Your task to perform on an android device: Search for apple airpods on costco, select the first entry, add it to the cart, then select checkout. Image 0: 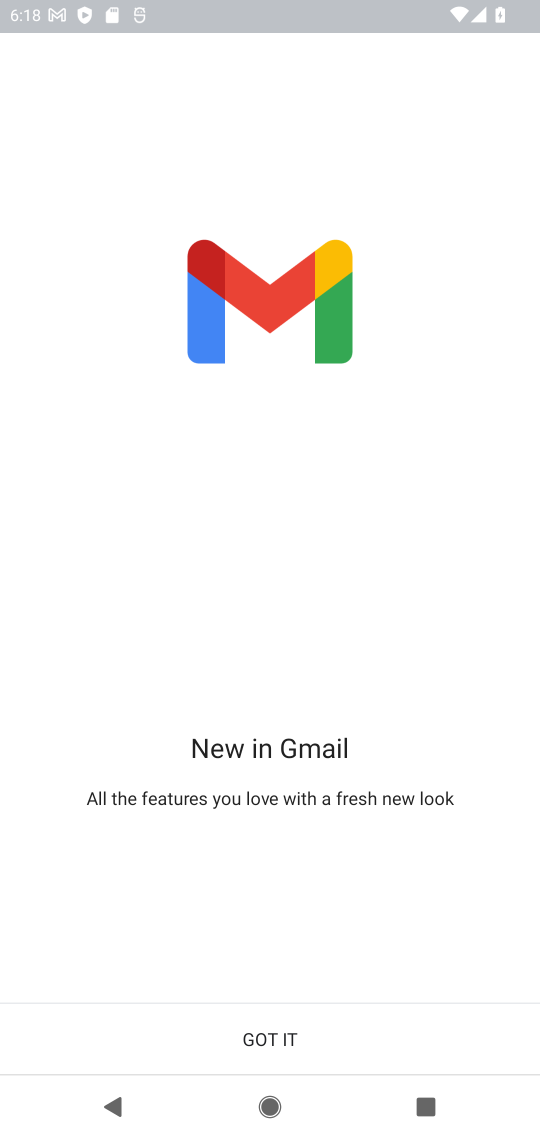
Step 0: press home button
Your task to perform on an android device: Search for apple airpods on costco, select the first entry, add it to the cart, then select checkout. Image 1: 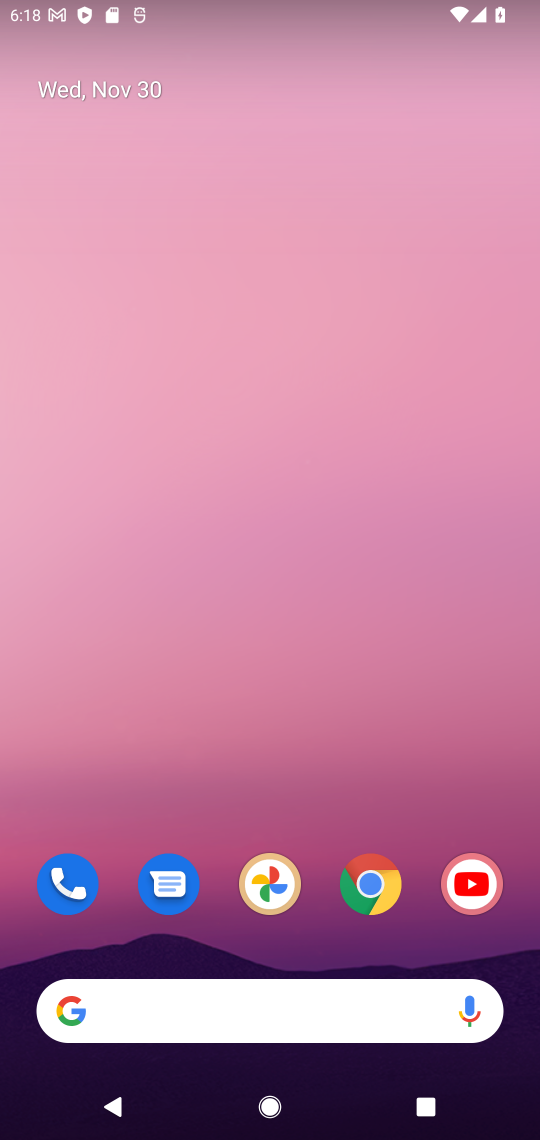
Step 1: click (367, 901)
Your task to perform on an android device: Search for apple airpods on costco, select the first entry, add it to the cart, then select checkout. Image 2: 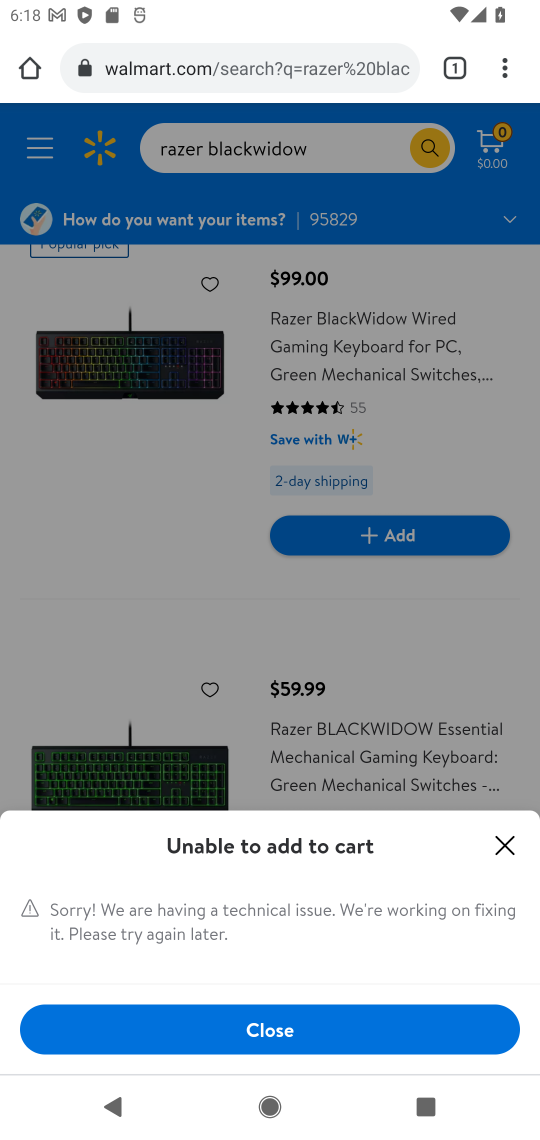
Step 2: click (240, 75)
Your task to perform on an android device: Search for apple airpods on costco, select the first entry, add it to the cart, then select checkout. Image 3: 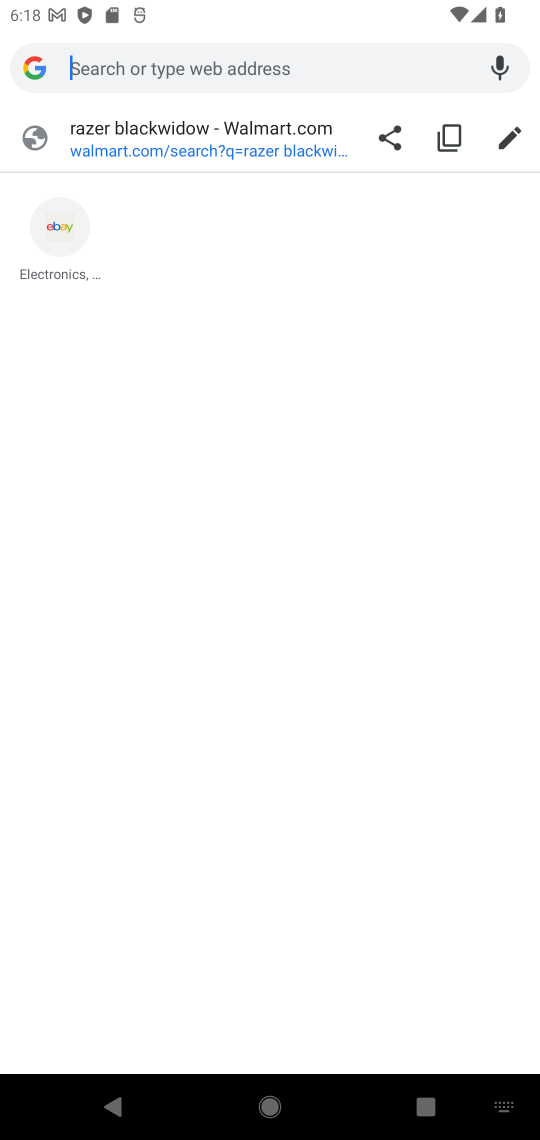
Step 3: type "costco.com"
Your task to perform on an android device: Search for apple airpods on costco, select the first entry, add it to the cart, then select checkout. Image 4: 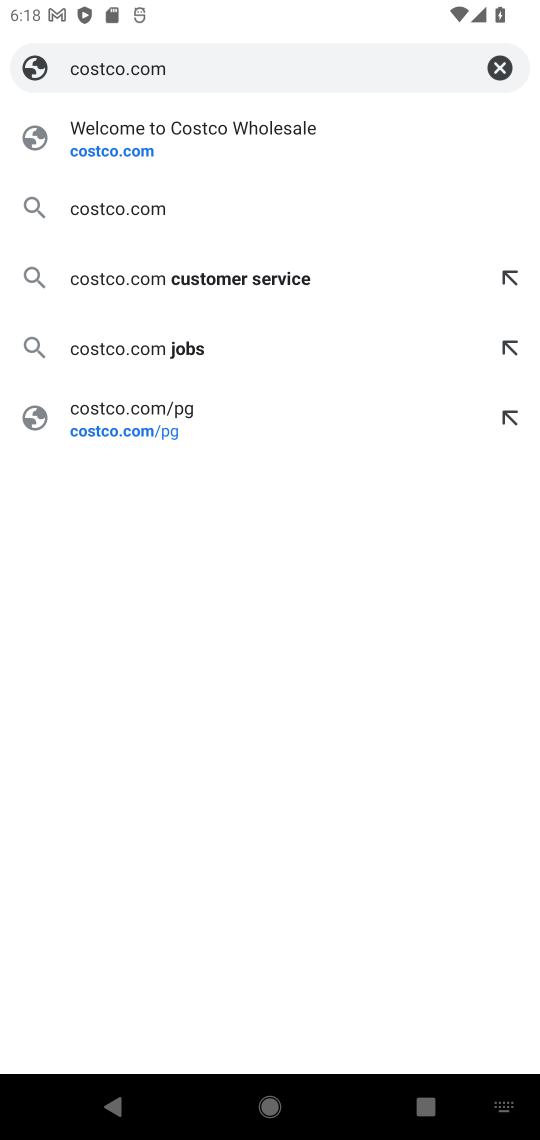
Step 4: click (77, 148)
Your task to perform on an android device: Search for apple airpods on costco, select the first entry, add it to the cart, then select checkout. Image 5: 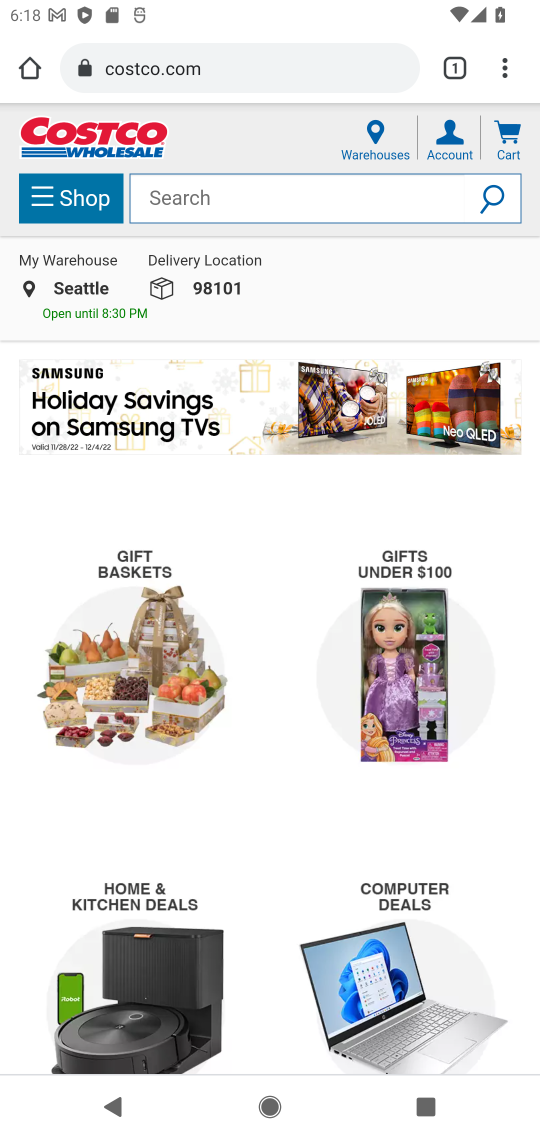
Step 5: click (193, 182)
Your task to perform on an android device: Search for apple airpods on costco, select the first entry, add it to the cart, then select checkout. Image 6: 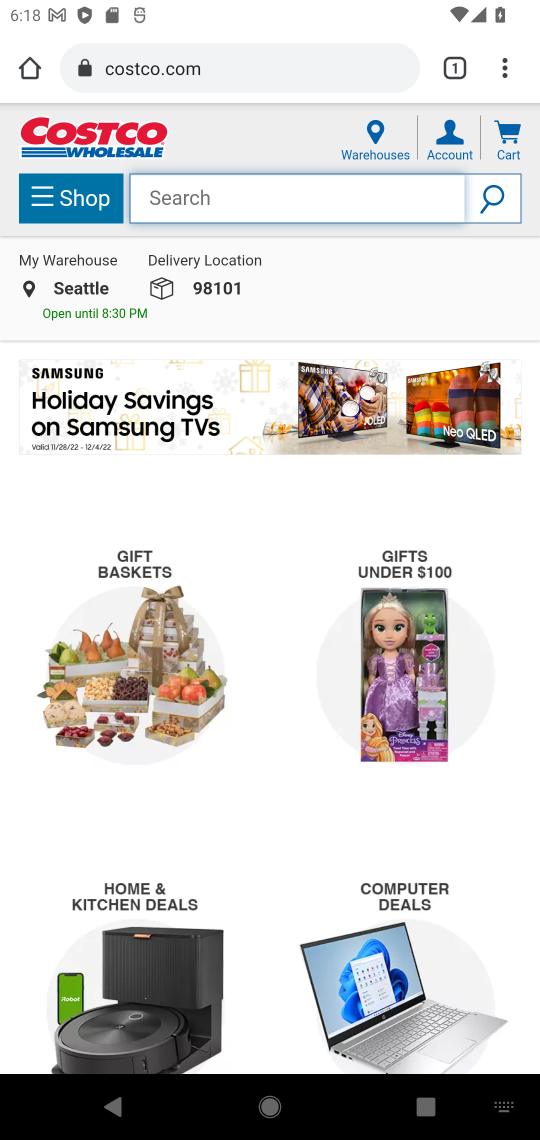
Step 6: type "apple airpods"
Your task to perform on an android device: Search for apple airpods on costco, select the first entry, add it to the cart, then select checkout. Image 7: 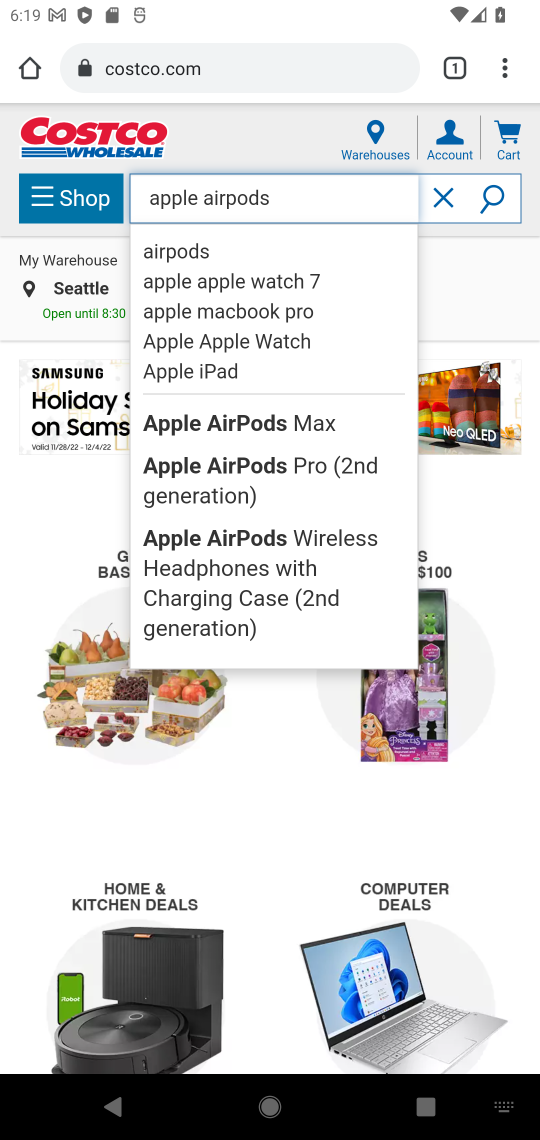
Step 7: click (503, 204)
Your task to perform on an android device: Search for apple airpods on costco, select the first entry, add it to the cart, then select checkout. Image 8: 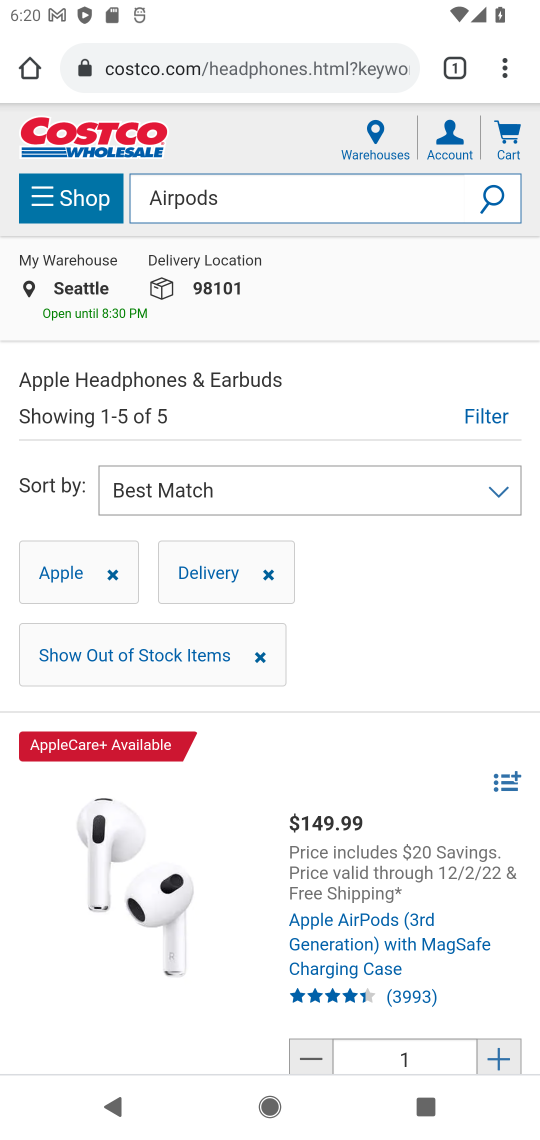
Step 8: drag from (228, 749) to (210, 405)
Your task to perform on an android device: Search for apple airpods on costco, select the first entry, add it to the cart, then select checkout. Image 9: 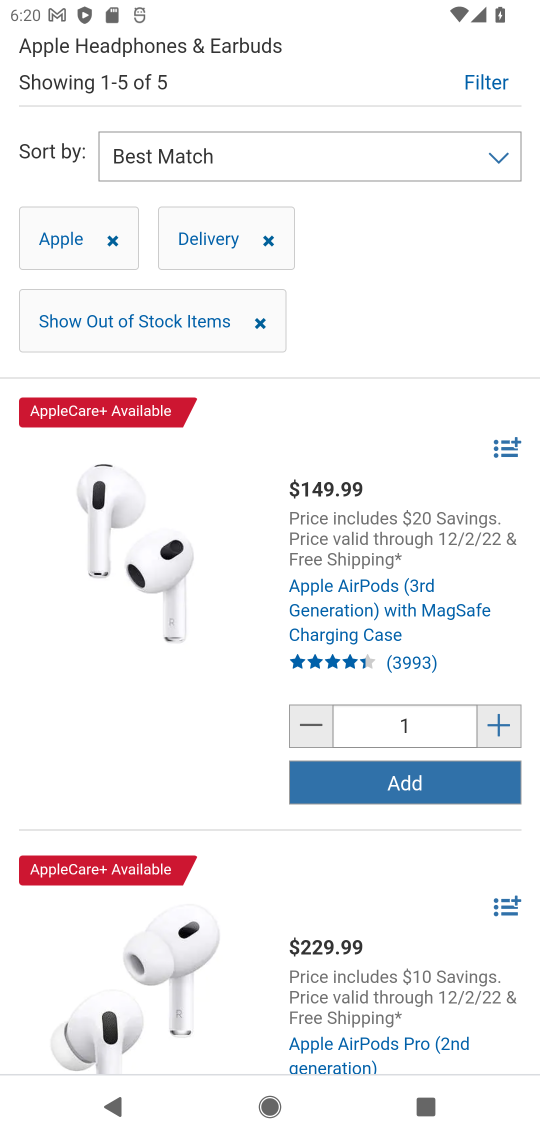
Step 9: click (359, 779)
Your task to perform on an android device: Search for apple airpods on costco, select the first entry, add it to the cart, then select checkout. Image 10: 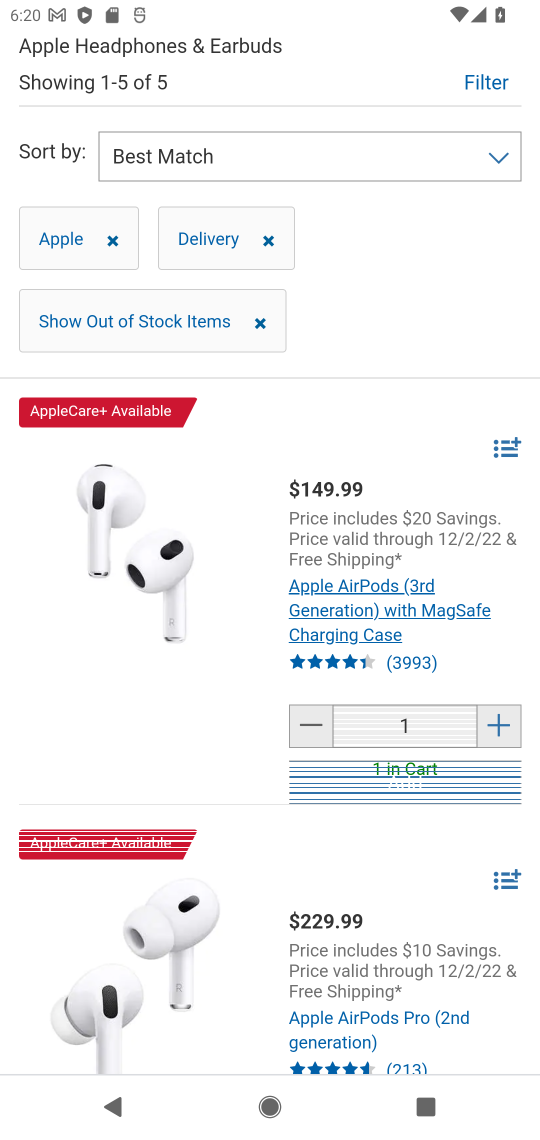
Step 10: drag from (377, 335) to (334, 793)
Your task to perform on an android device: Search for apple airpods on costco, select the first entry, add it to the cart, then select checkout. Image 11: 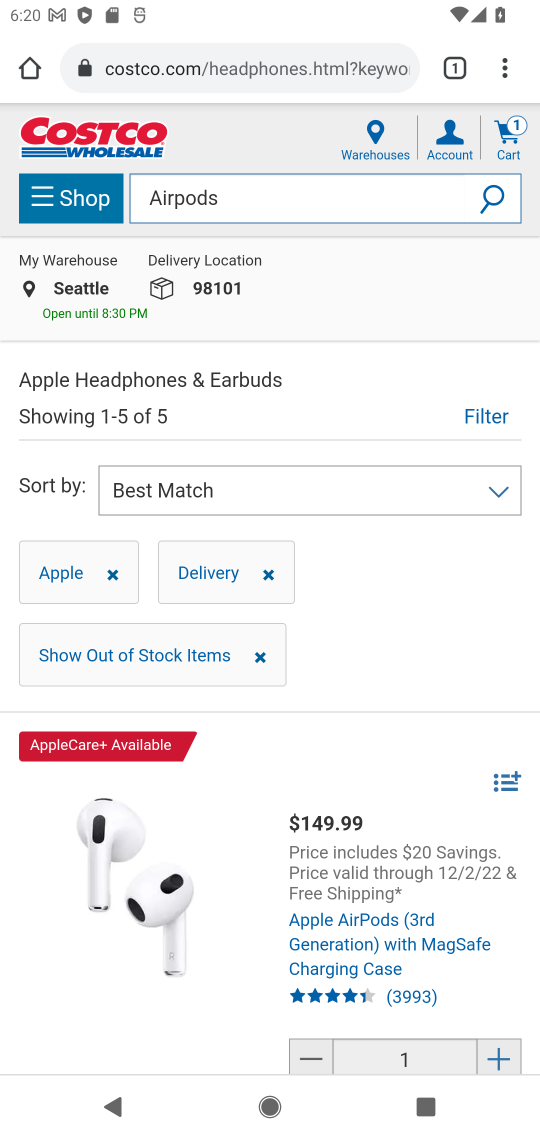
Step 11: click (510, 133)
Your task to perform on an android device: Search for apple airpods on costco, select the first entry, add it to the cart, then select checkout. Image 12: 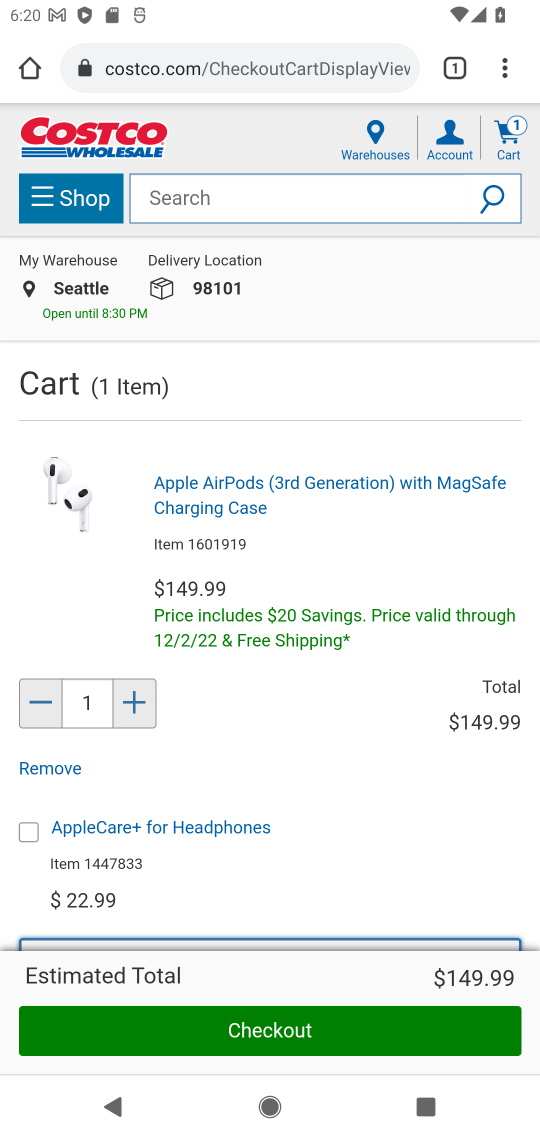
Step 12: click (291, 1038)
Your task to perform on an android device: Search for apple airpods on costco, select the first entry, add it to the cart, then select checkout. Image 13: 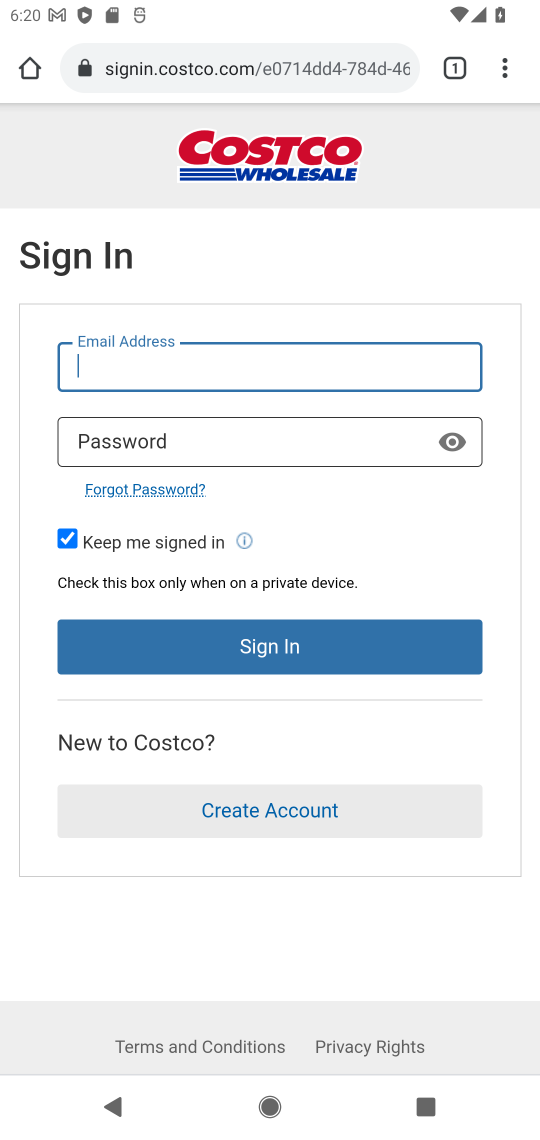
Step 13: task complete